Your task to perform on an android device: open chrome and create a bookmark for the current page Image 0: 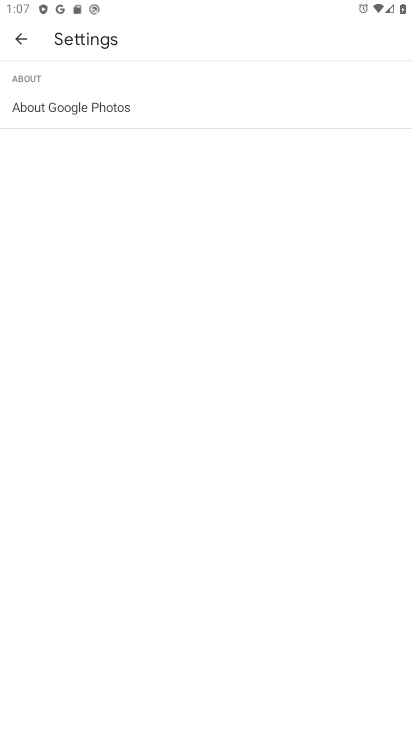
Step 0: press home button
Your task to perform on an android device: open chrome and create a bookmark for the current page Image 1: 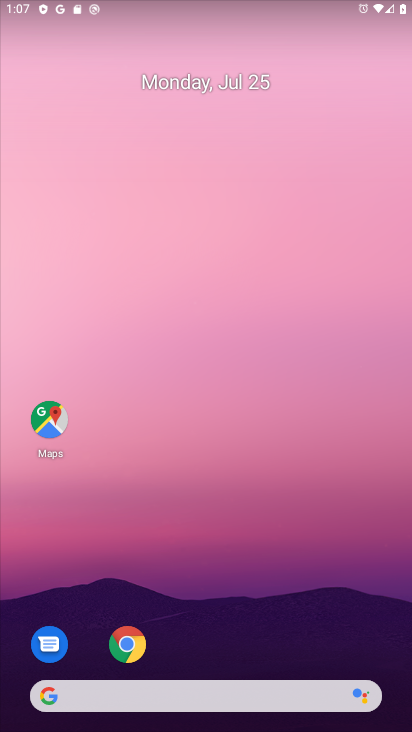
Step 1: click (128, 645)
Your task to perform on an android device: open chrome and create a bookmark for the current page Image 2: 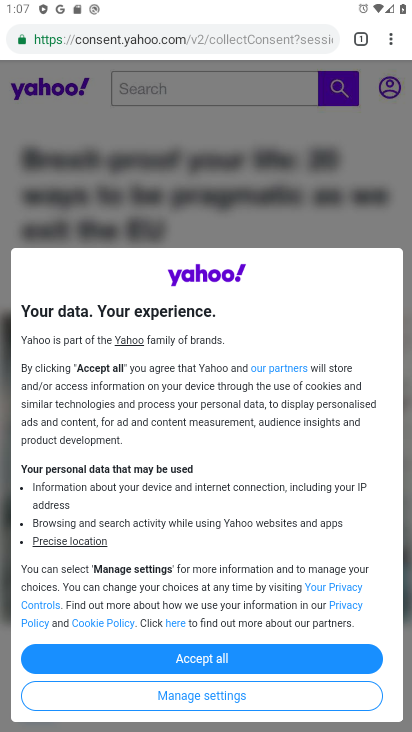
Step 2: click (395, 36)
Your task to perform on an android device: open chrome and create a bookmark for the current page Image 3: 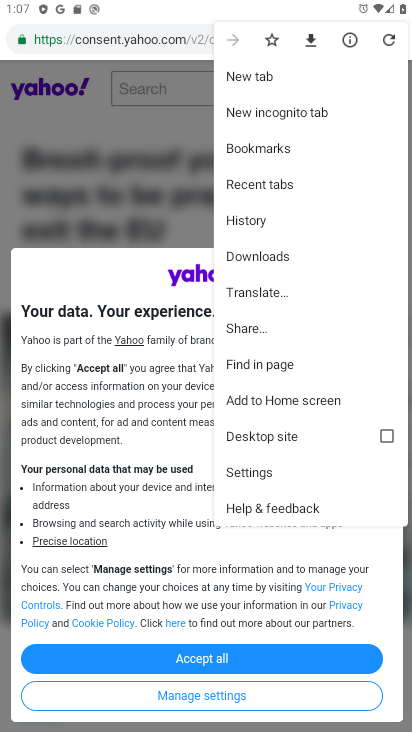
Step 3: click (266, 36)
Your task to perform on an android device: open chrome and create a bookmark for the current page Image 4: 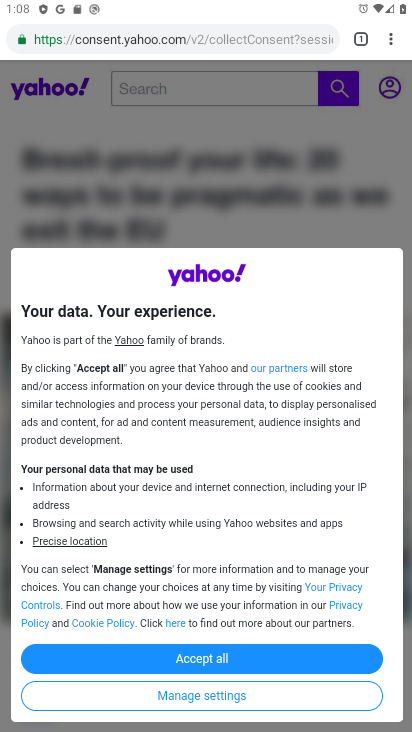
Step 4: task complete